Your task to perform on an android device: Search for Italian restaurants on Maps Image 0: 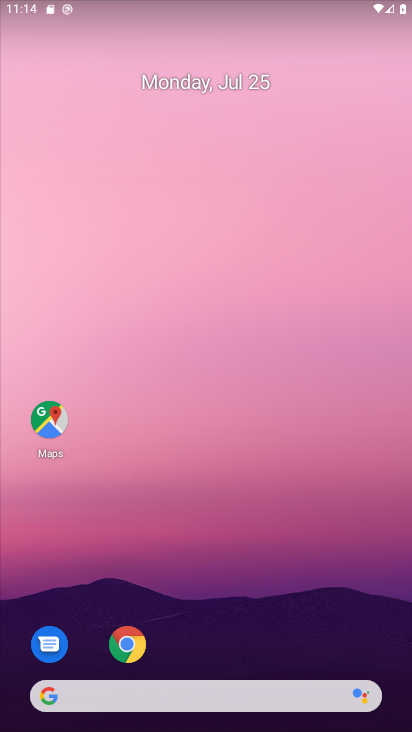
Step 0: drag from (260, 678) to (233, 135)
Your task to perform on an android device: Search for Italian restaurants on Maps Image 1: 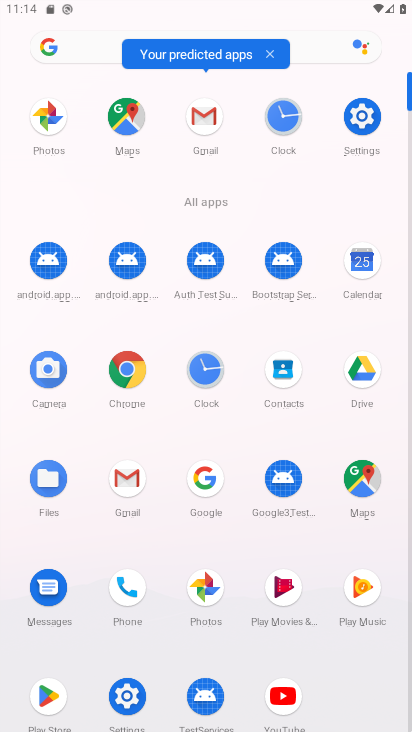
Step 1: click (356, 492)
Your task to perform on an android device: Search for Italian restaurants on Maps Image 2: 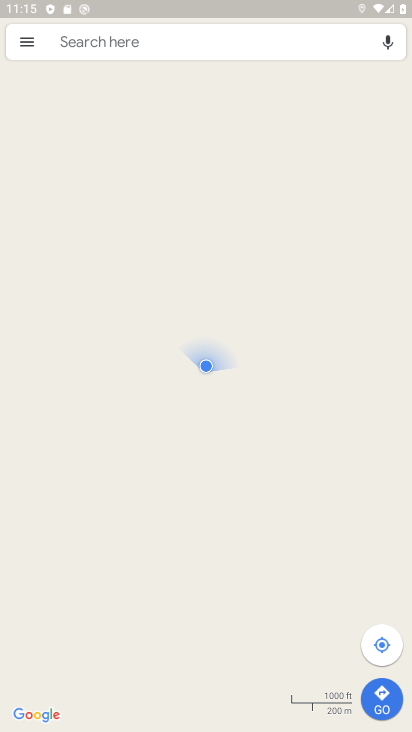
Step 2: click (226, 46)
Your task to perform on an android device: Search for Italian restaurants on Maps Image 3: 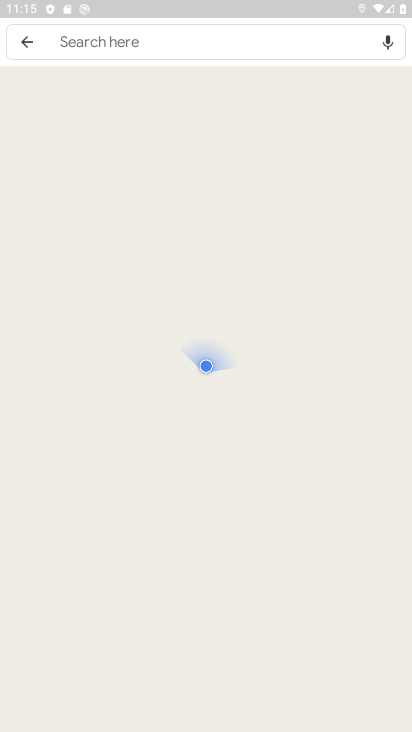
Step 3: click (226, 46)
Your task to perform on an android device: Search for Italian restaurants on Maps Image 4: 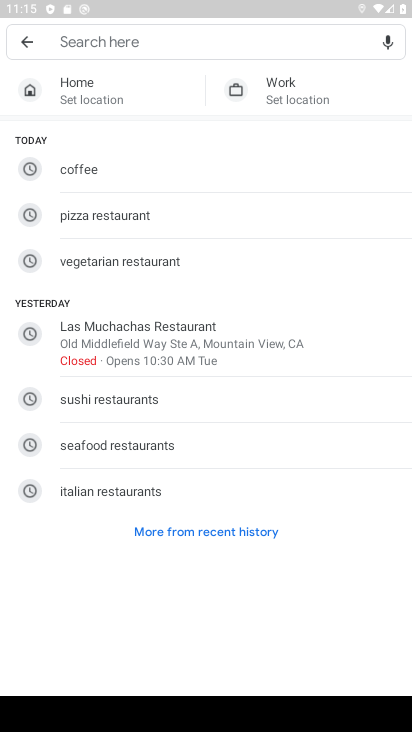
Step 4: click (140, 490)
Your task to perform on an android device: Search for Italian restaurants on Maps Image 5: 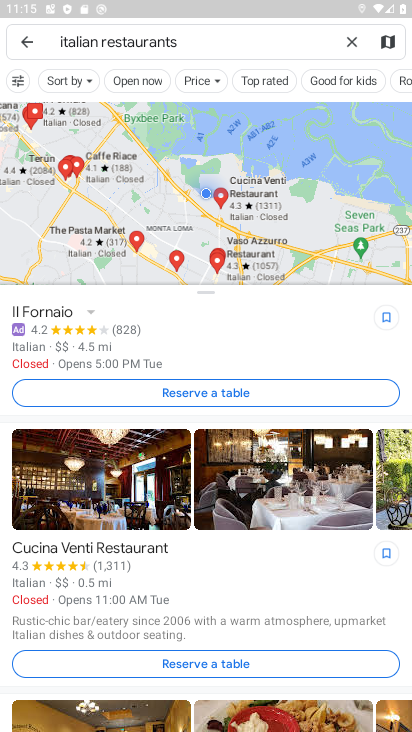
Step 5: task complete